Your task to perform on an android device: Search for the best coffee tables on Crate & Barrel Image 0: 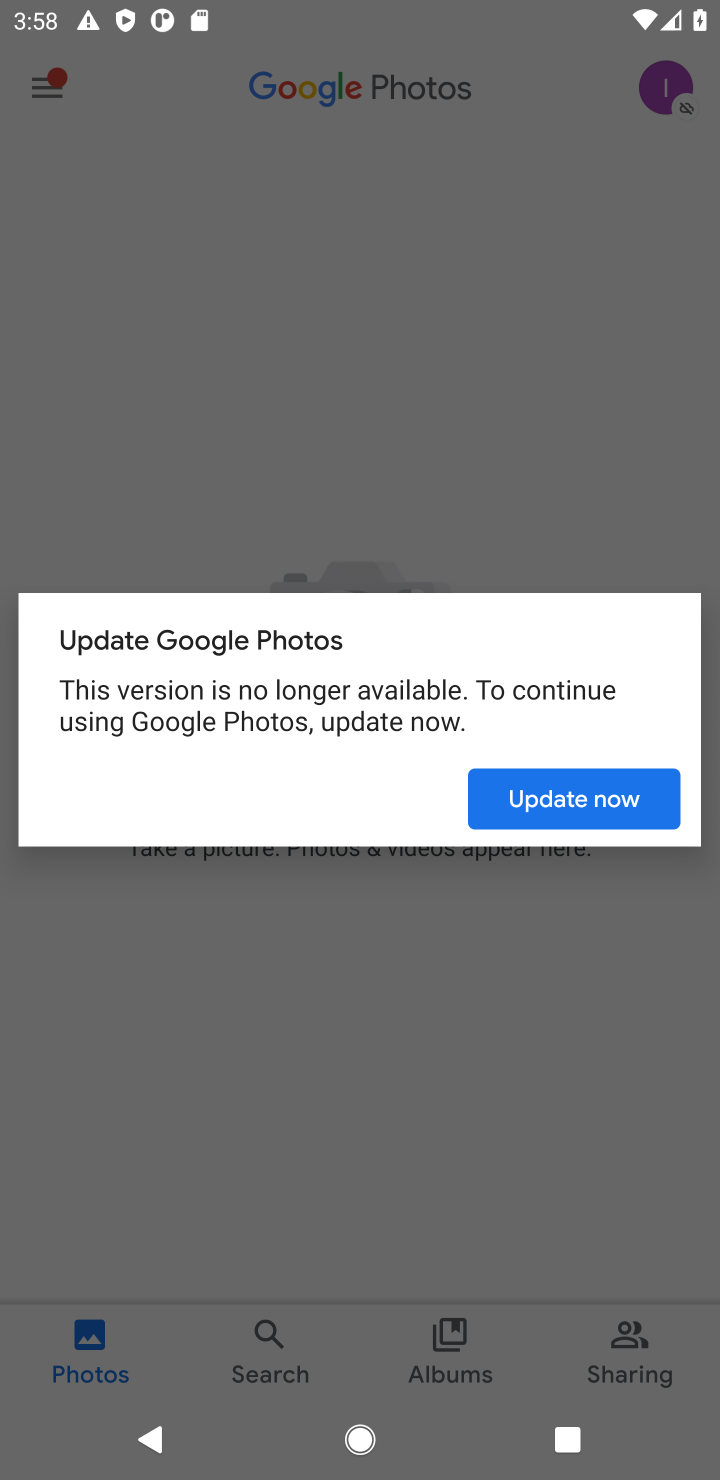
Step 0: press home button
Your task to perform on an android device: Search for the best coffee tables on Crate & Barrel Image 1: 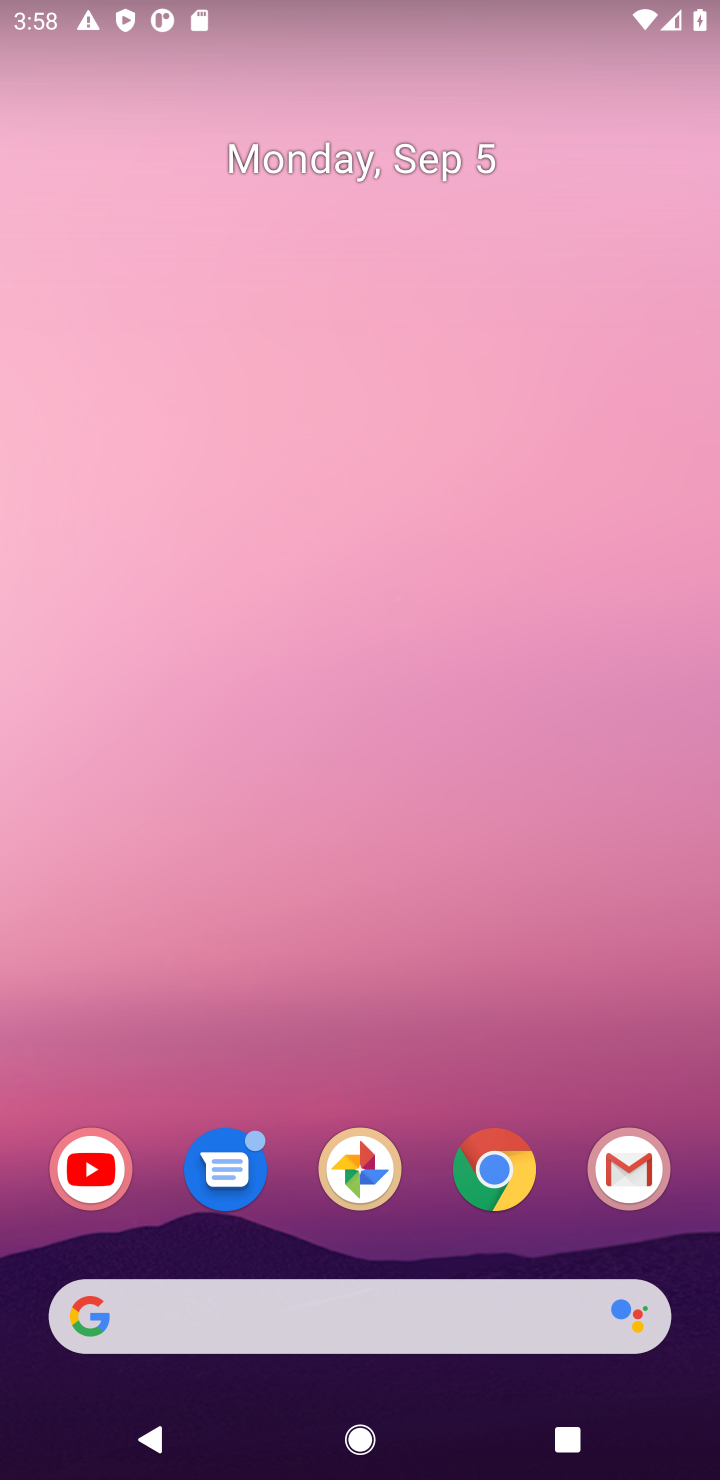
Step 1: click (472, 1172)
Your task to perform on an android device: Search for the best coffee tables on Crate & Barrel Image 2: 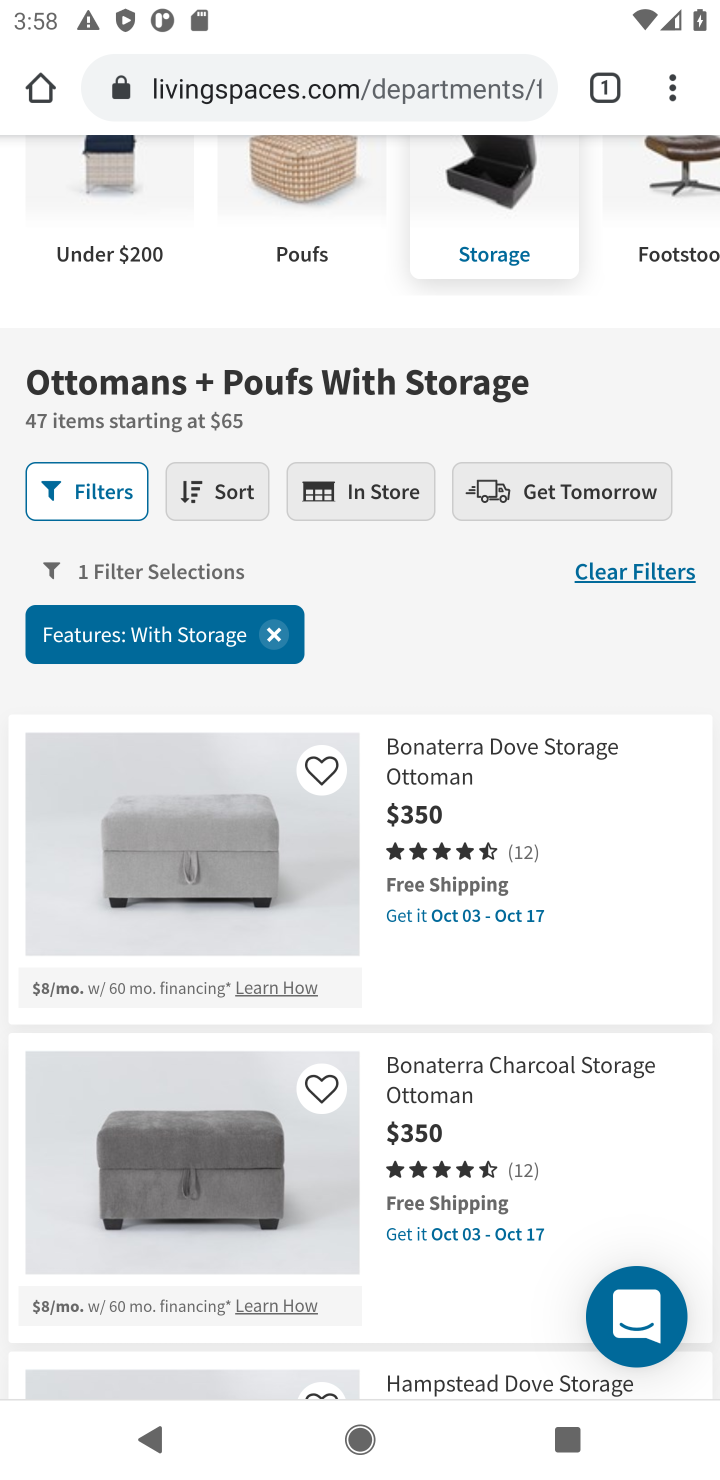
Step 2: click (362, 92)
Your task to perform on an android device: Search for the best coffee tables on Crate & Barrel Image 3: 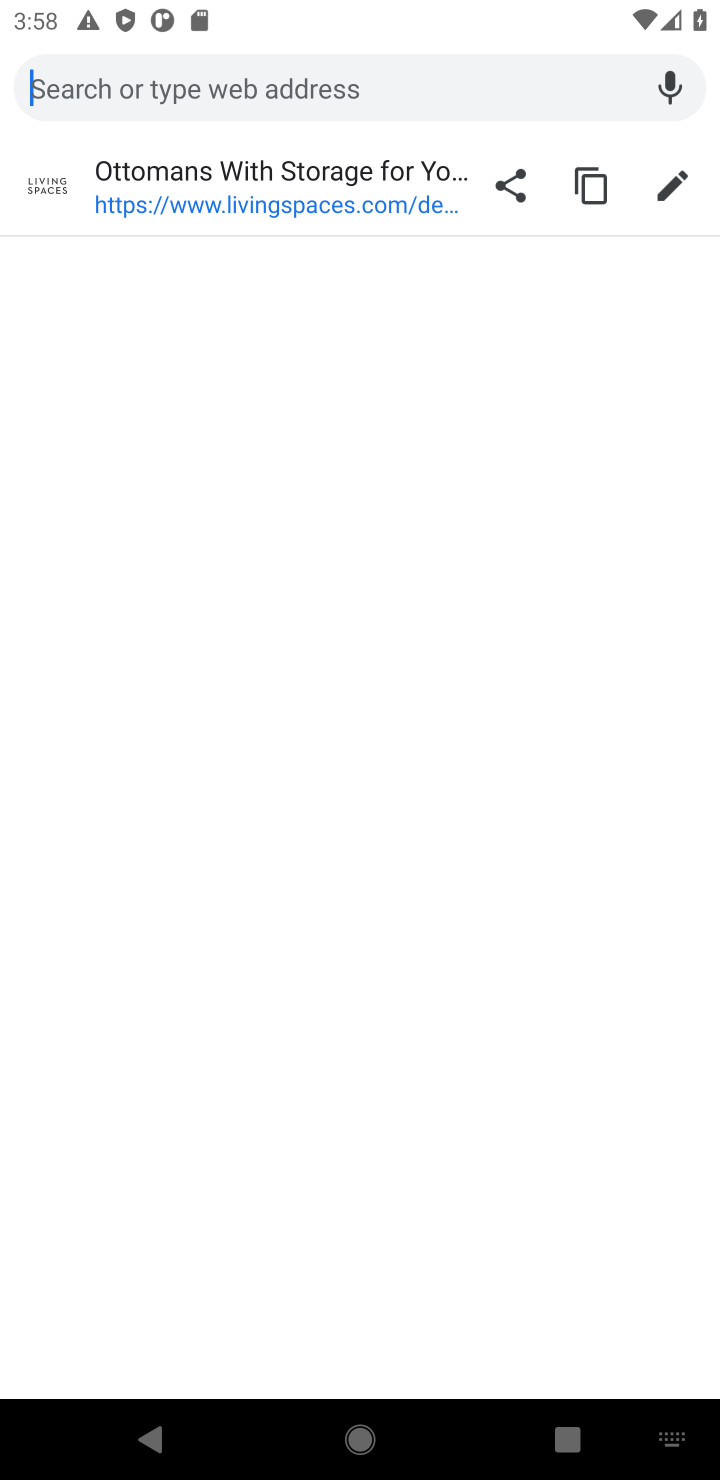
Step 3: type "Crate & Barrel"
Your task to perform on an android device: Search for the best coffee tables on Crate & Barrel Image 4: 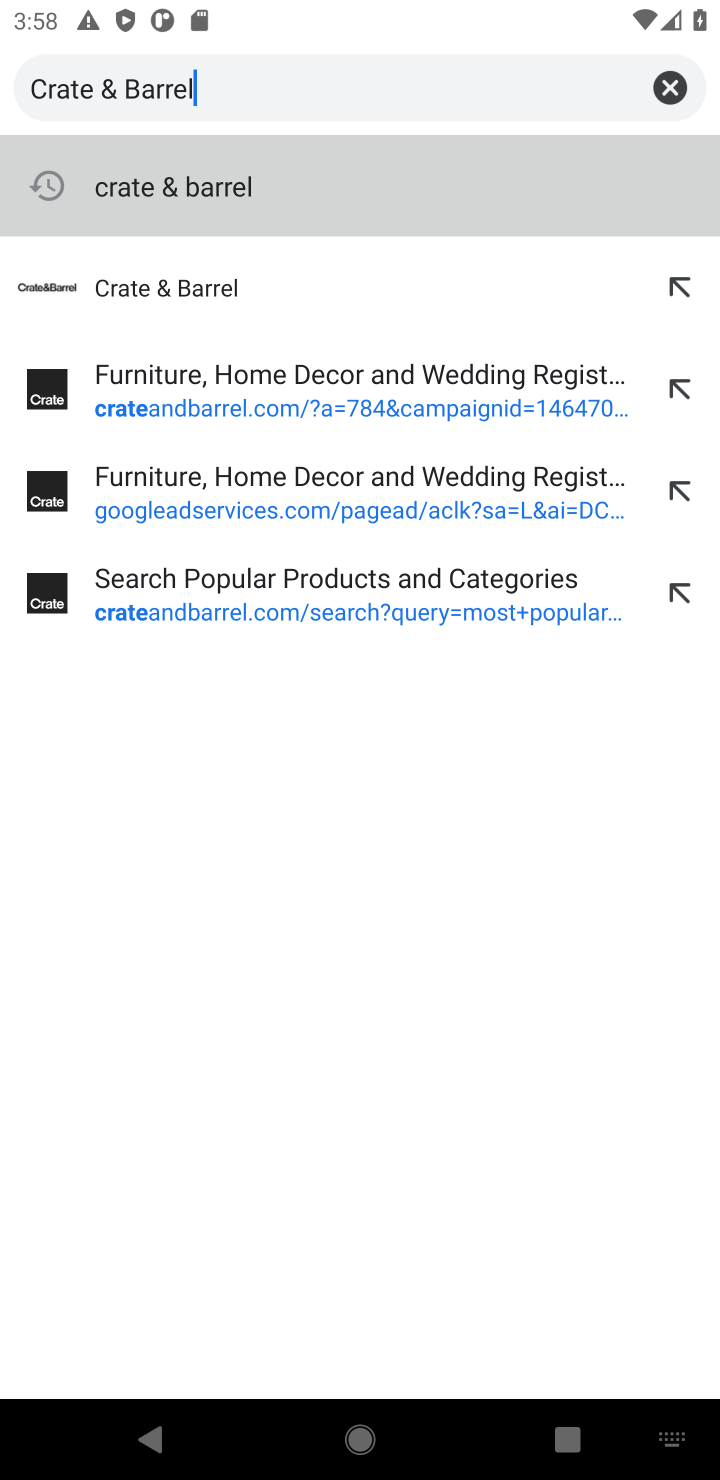
Step 4: click (127, 293)
Your task to perform on an android device: Search for the best coffee tables on Crate & Barrel Image 5: 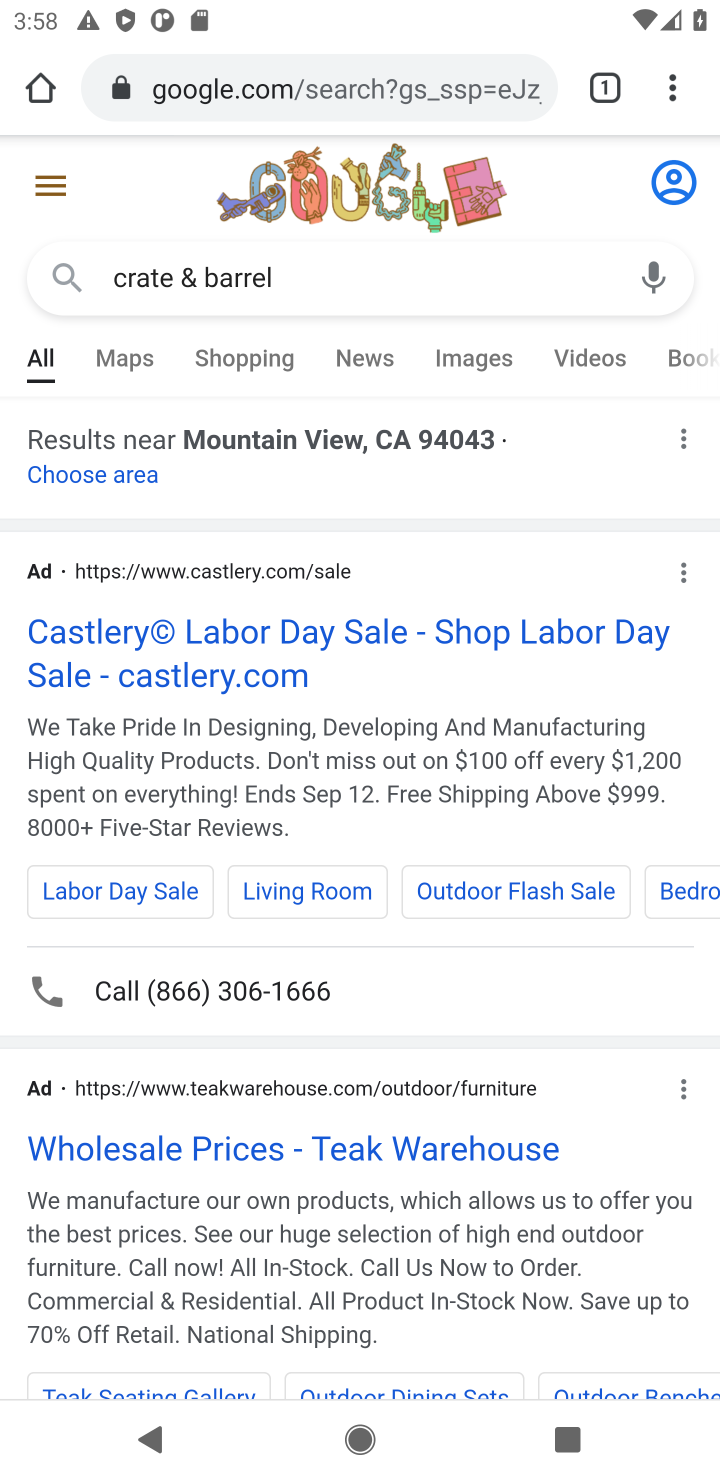
Step 5: drag from (617, 571) to (625, 307)
Your task to perform on an android device: Search for the best coffee tables on Crate & Barrel Image 6: 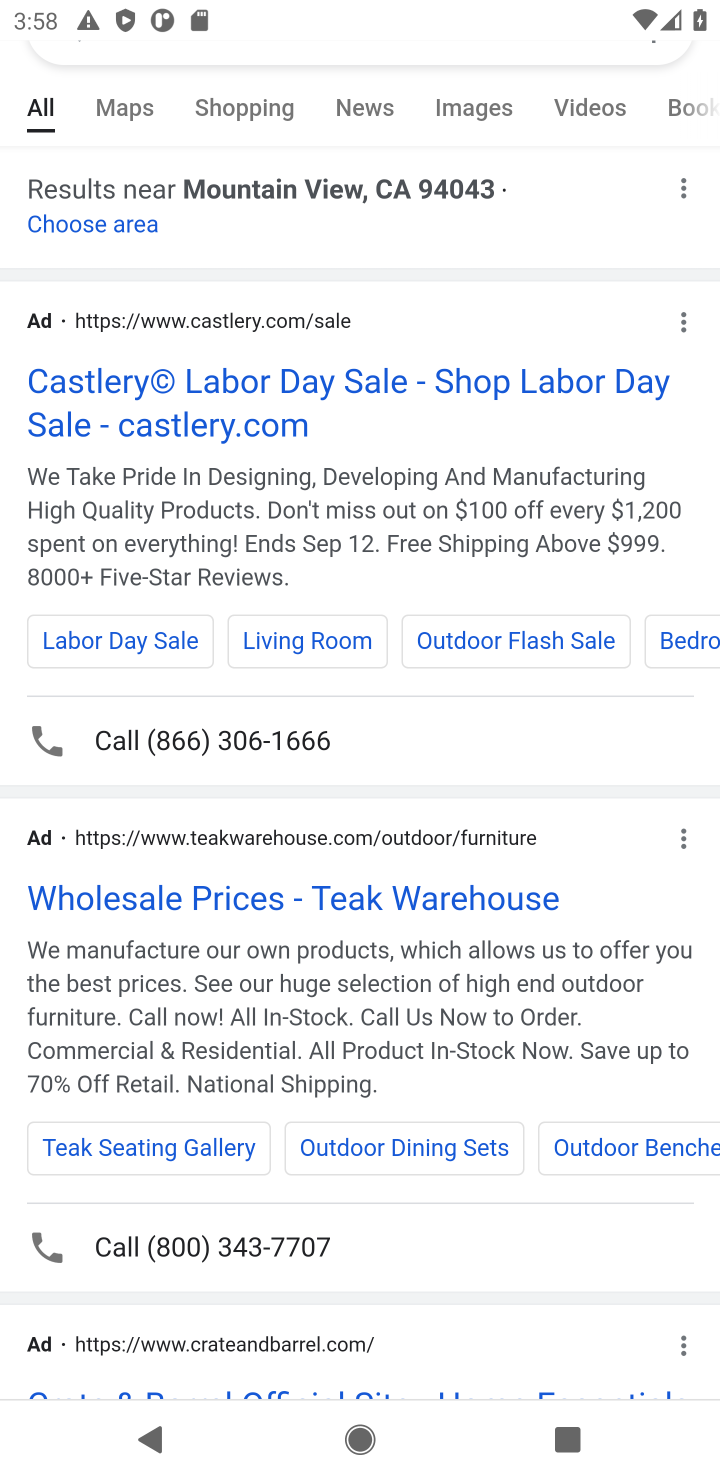
Step 6: drag from (588, 1224) to (581, 629)
Your task to perform on an android device: Search for the best coffee tables on Crate & Barrel Image 7: 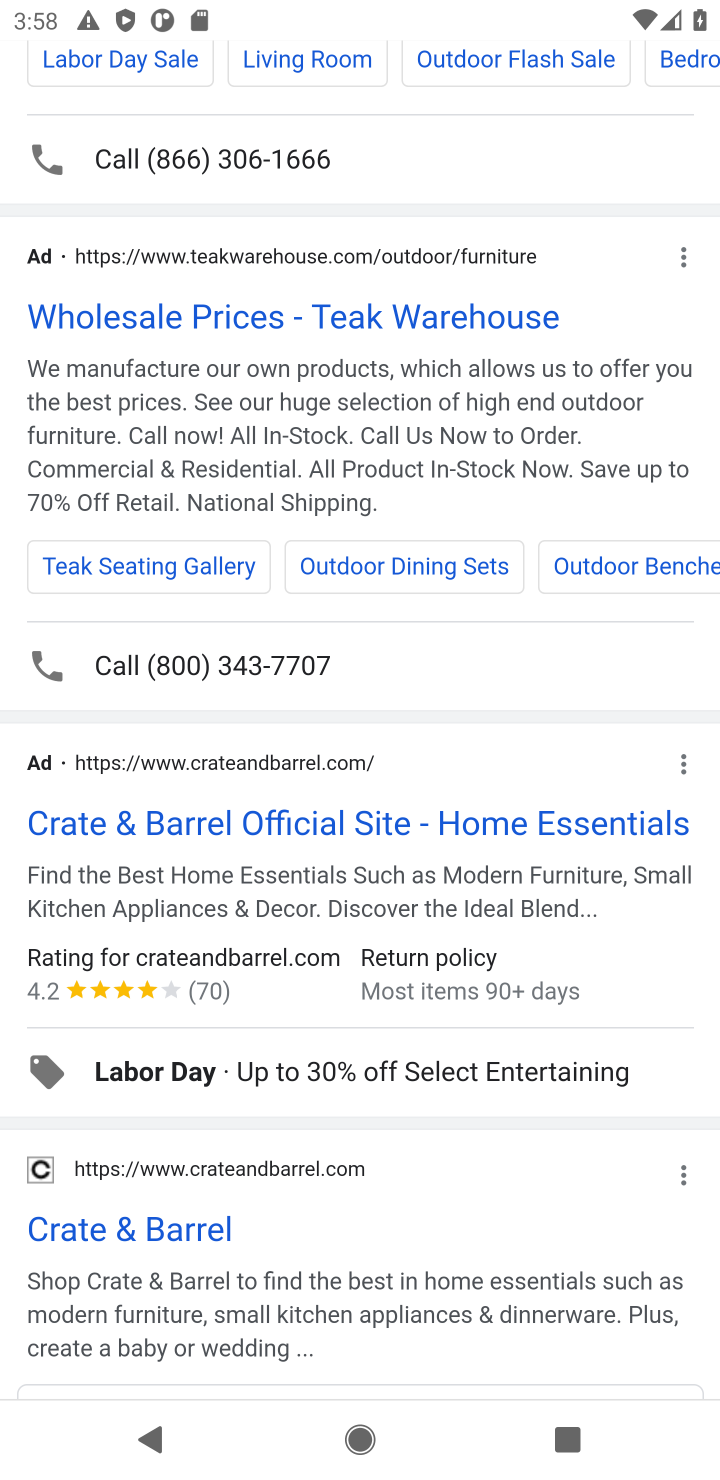
Step 7: click (162, 826)
Your task to perform on an android device: Search for the best coffee tables on Crate & Barrel Image 8: 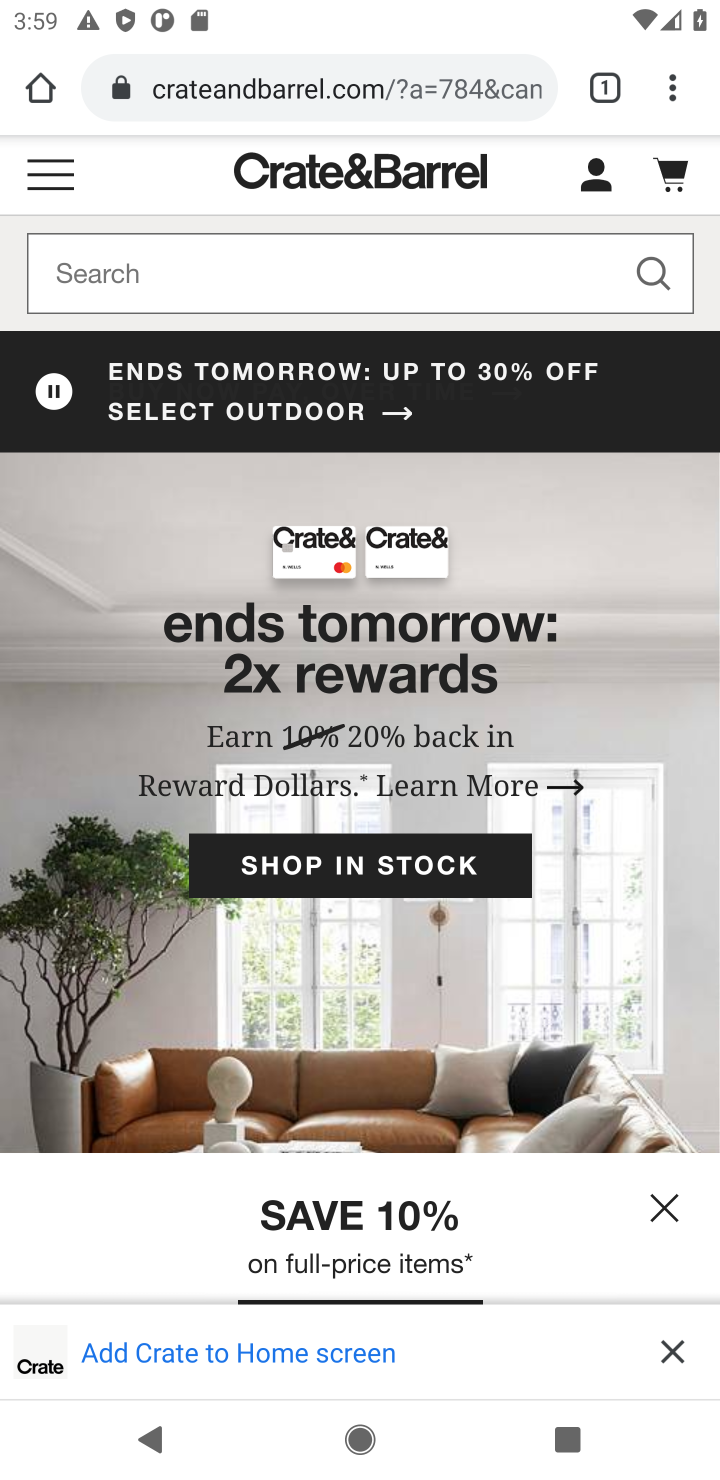
Step 8: click (292, 267)
Your task to perform on an android device: Search for the best coffee tables on Crate & Barrel Image 9: 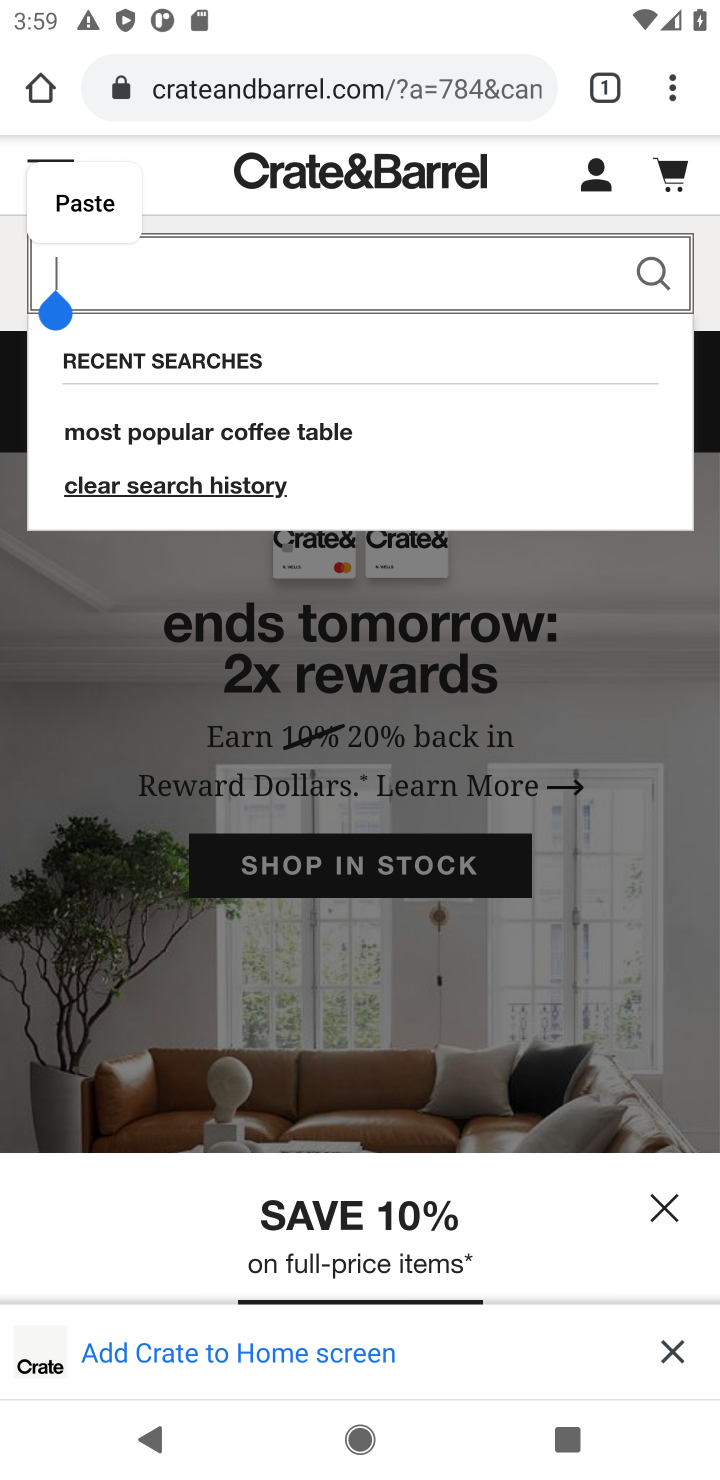
Step 9: type "best coffee tables "
Your task to perform on an android device: Search for the best coffee tables on Crate & Barrel Image 10: 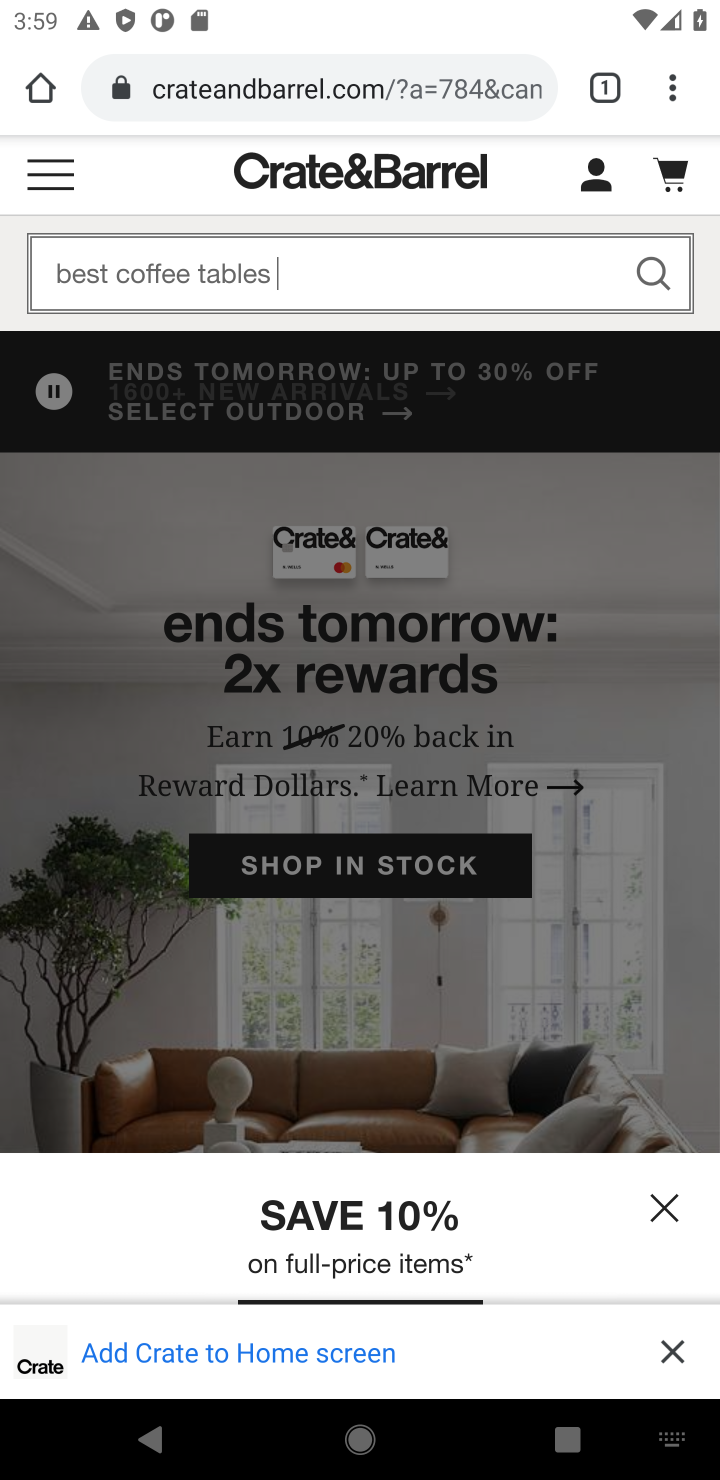
Step 10: click (650, 269)
Your task to perform on an android device: Search for the best coffee tables on Crate & Barrel Image 11: 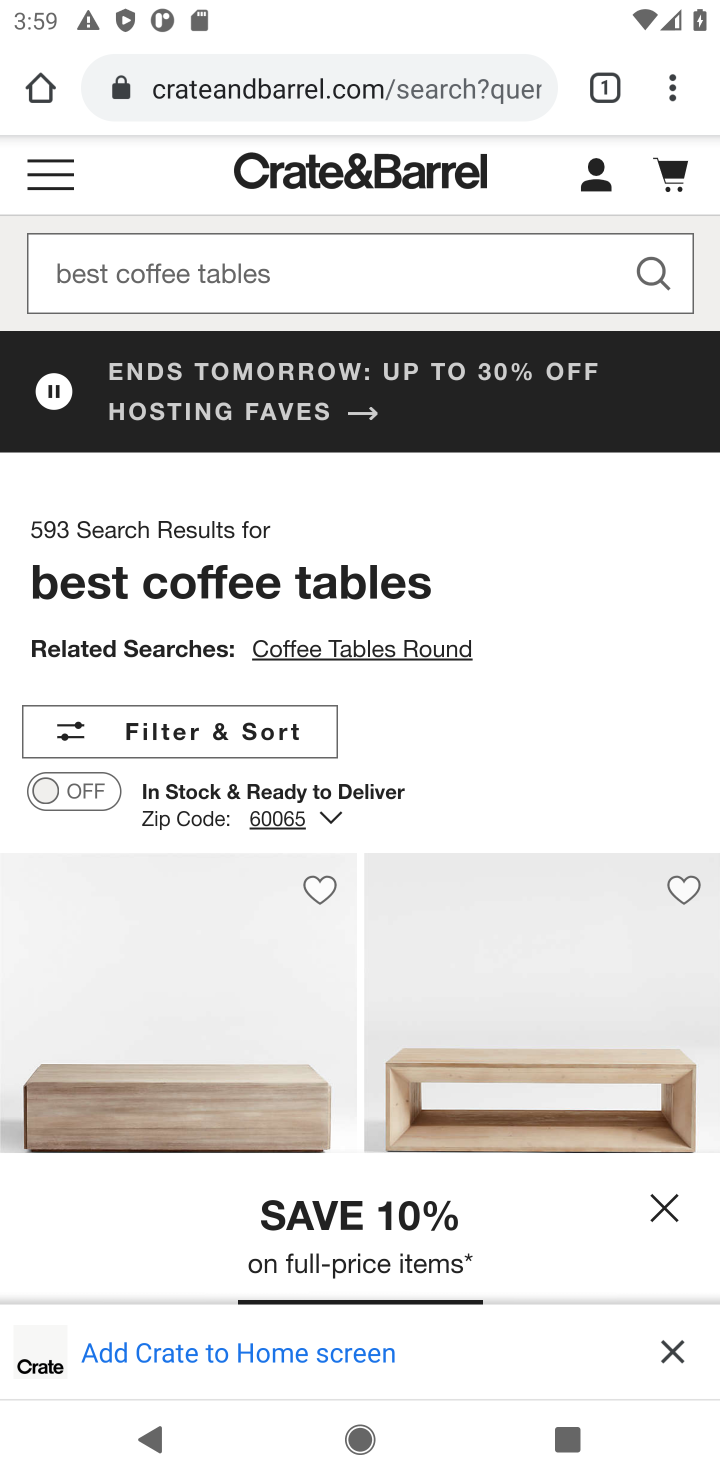
Step 11: task complete